Your task to perform on an android device: see tabs open on other devices in the chrome app Image 0: 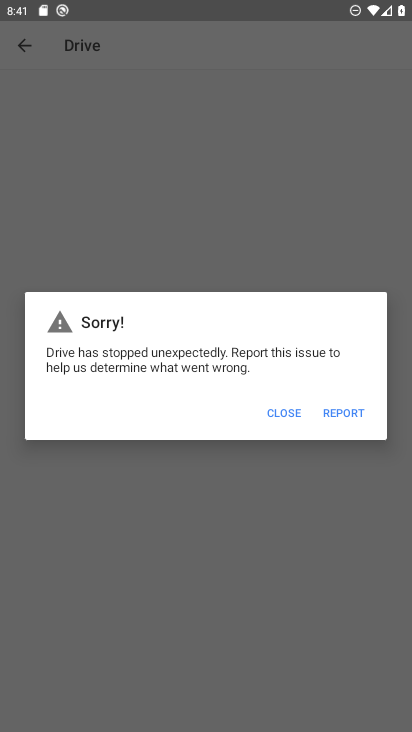
Step 0: press home button
Your task to perform on an android device: see tabs open on other devices in the chrome app Image 1: 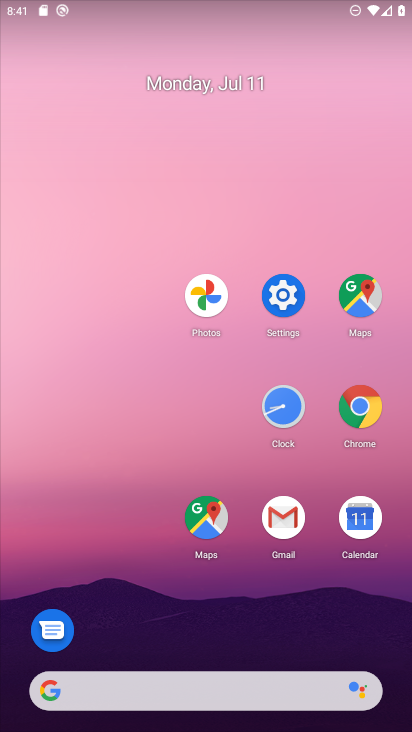
Step 1: click (351, 410)
Your task to perform on an android device: see tabs open on other devices in the chrome app Image 2: 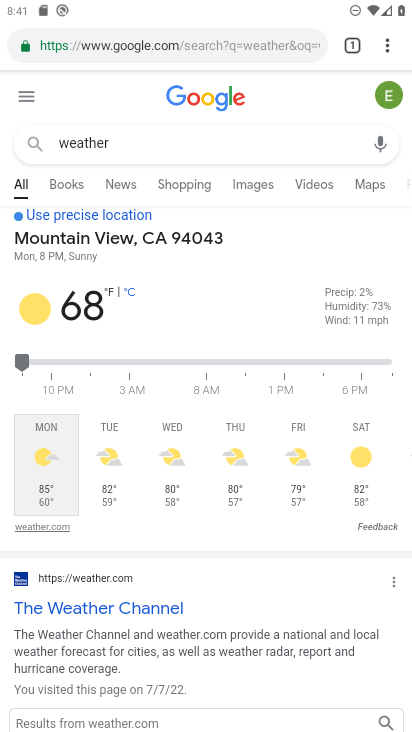
Step 2: click (389, 48)
Your task to perform on an android device: see tabs open on other devices in the chrome app Image 3: 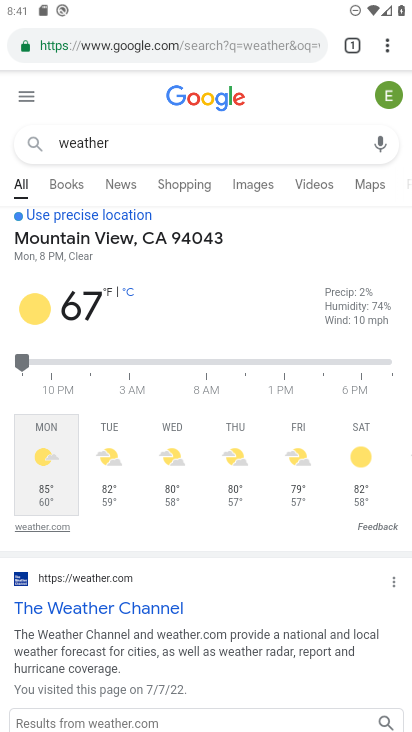
Step 3: click (389, 48)
Your task to perform on an android device: see tabs open on other devices in the chrome app Image 4: 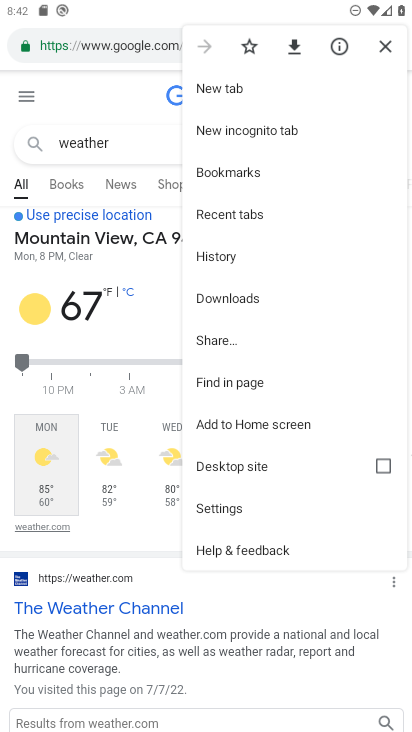
Step 4: click (280, 221)
Your task to perform on an android device: see tabs open on other devices in the chrome app Image 5: 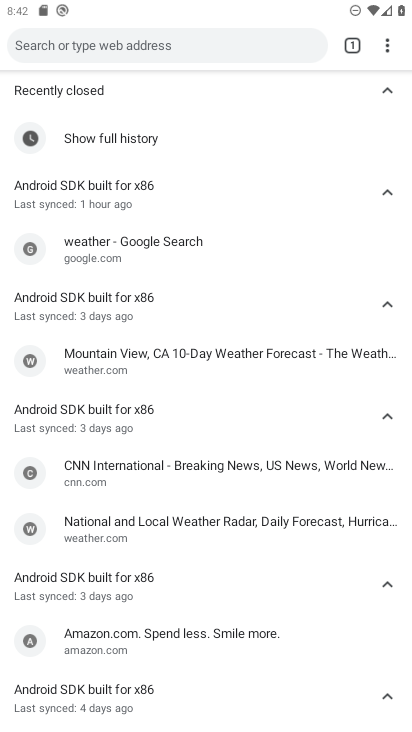
Step 5: task complete